Your task to perform on an android device: empty trash in the gmail app Image 0: 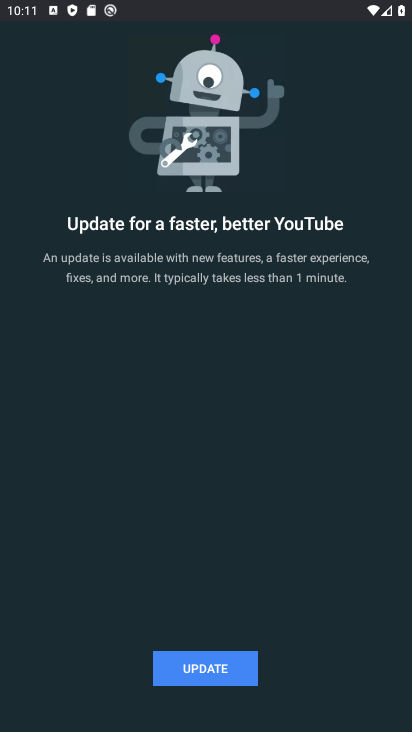
Step 0: press home button
Your task to perform on an android device: empty trash in the gmail app Image 1: 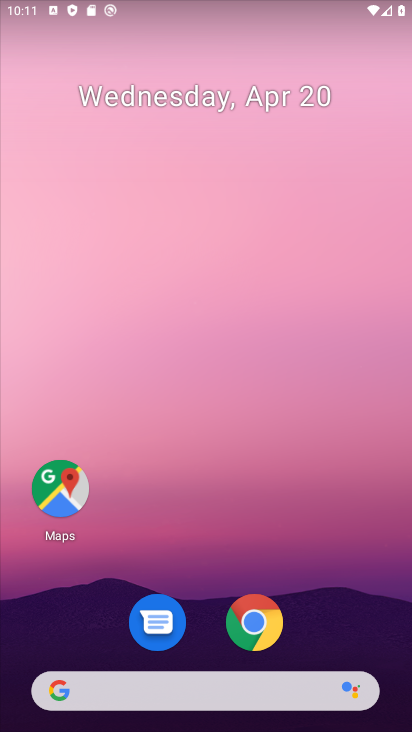
Step 1: drag from (368, 549) to (359, 87)
Your task to perform on an android device: empty trash in the gmail app Image 2: 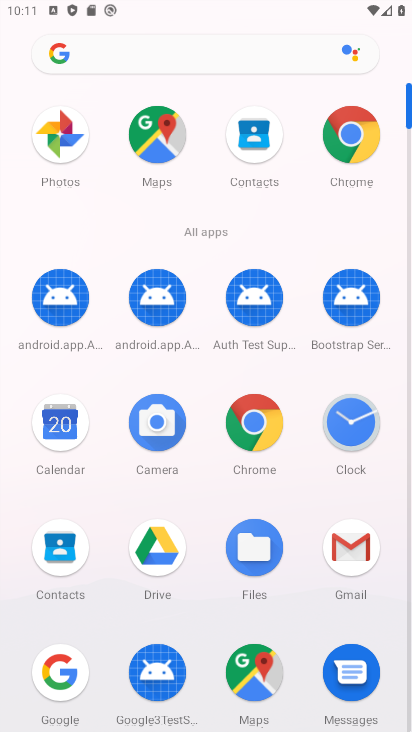
Step 2: click (355, 553)
Your task to perform on an android device: empty trash in the gmail app Image 3: 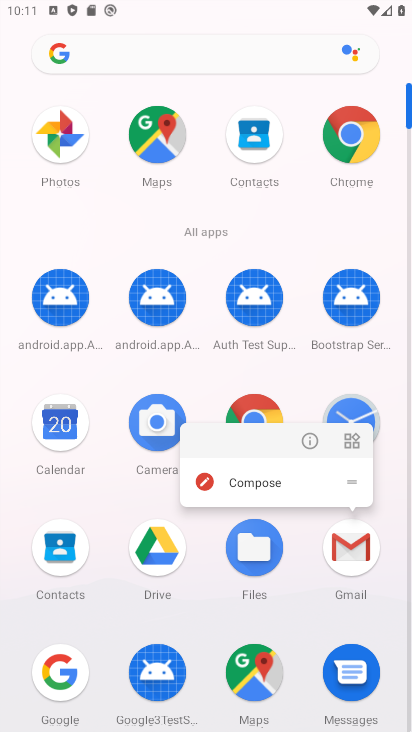
Step 3: click (355, 553)
Your task to perform on an android device: empty trash in the gmail app Image 4: 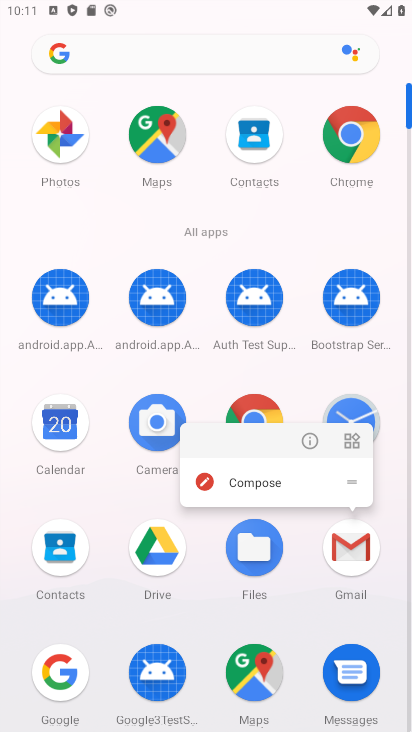
Step 4: click (355, 553)
Your task to perform on an android device: empty trash in the gmail app Image 5: 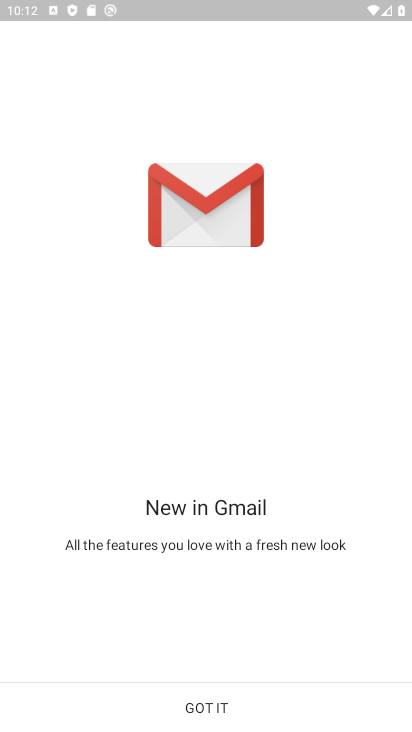
Step 5: click (209, 701)
Your task to perform on an android device: empty trash in the gmail app Image 6: 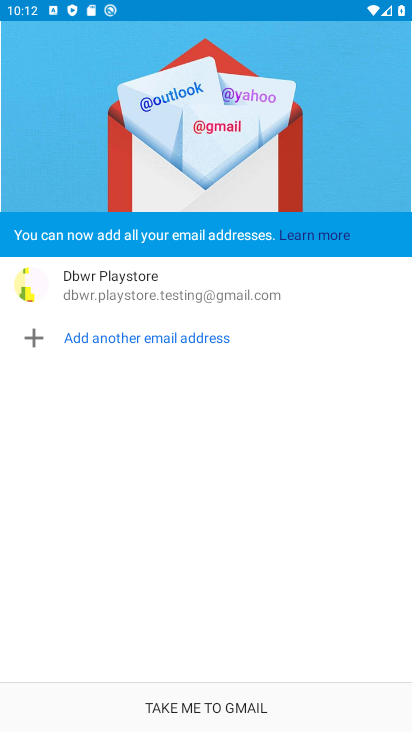
Step 6: click (209, 700)
Your task to perform on an android device: empty trash in the gmail app Image 7: 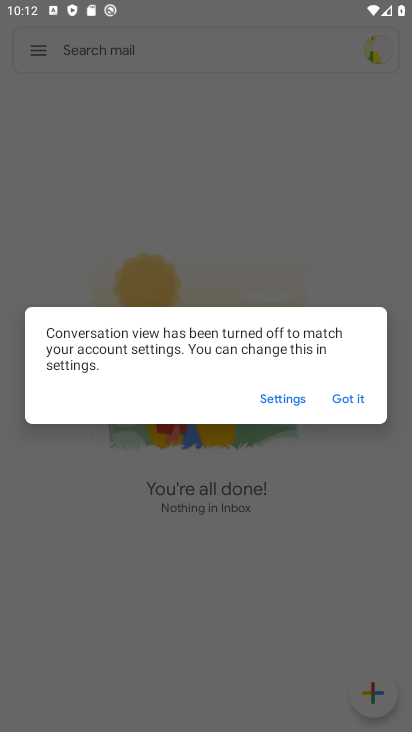
Step 7: click (348, 398)
Your task to perform on an android device: empty trash in the gmail app Image 8: 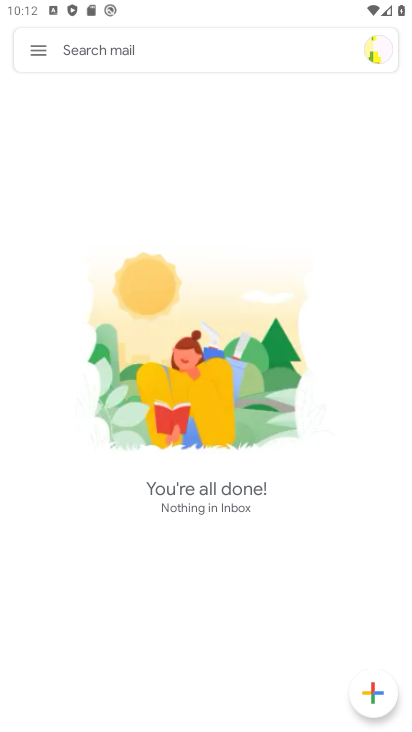
Step 8: click (34, 32)
Your task to perform on an android device: empty trash in the gmail app Image 9: 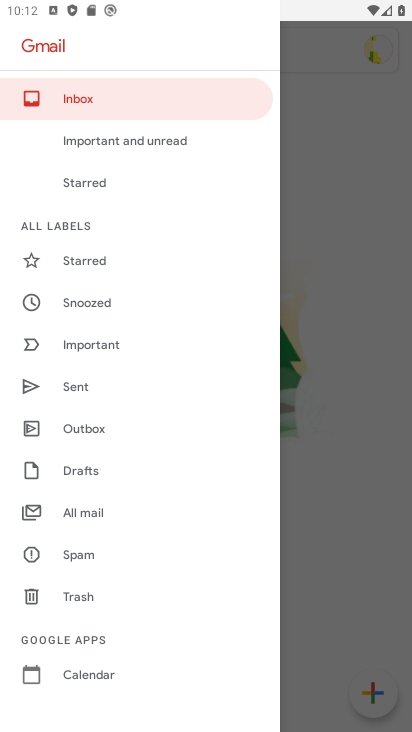
Step 9: click (99, 590)
Your task to perform on an android device: empty trash in the gmail app Image 10: 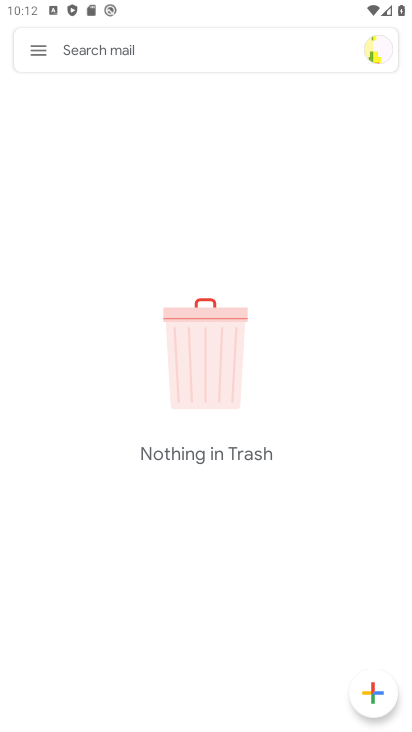
Step 10: task complete